Your task to perform on an android device: Show me the alarms in the clock app Image 0: 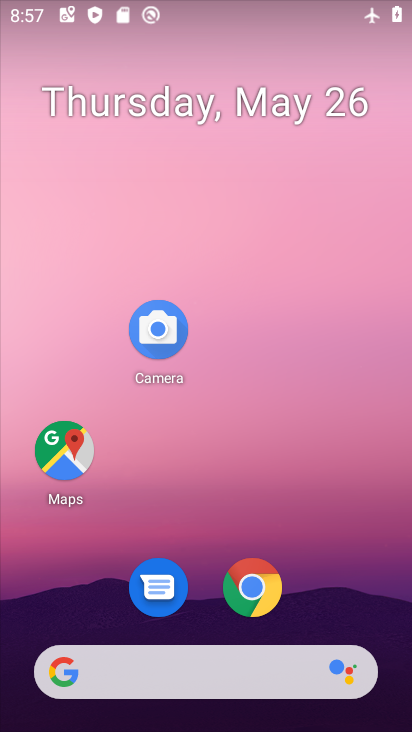
Step 0: drag from (199, 614) to (208, 223)
Your task to perform on an android device: Show me the alarms in the clock app Image 1: 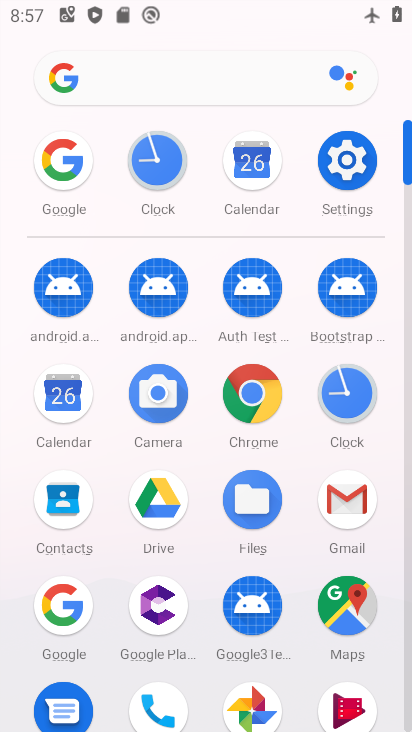
Step 1: click (155, 194)
Your task to perform on an android device: Show me the alarms in the clock app Image 2: 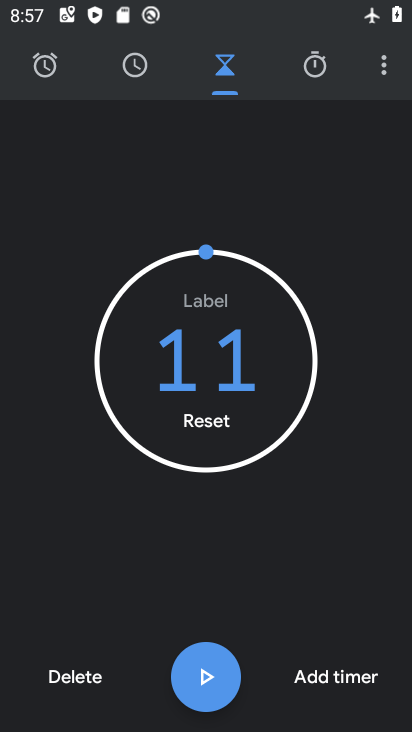
Step 2: click (47, 70)
Your task to perform on an android device: Show me the alarms in the clock app Image 3: 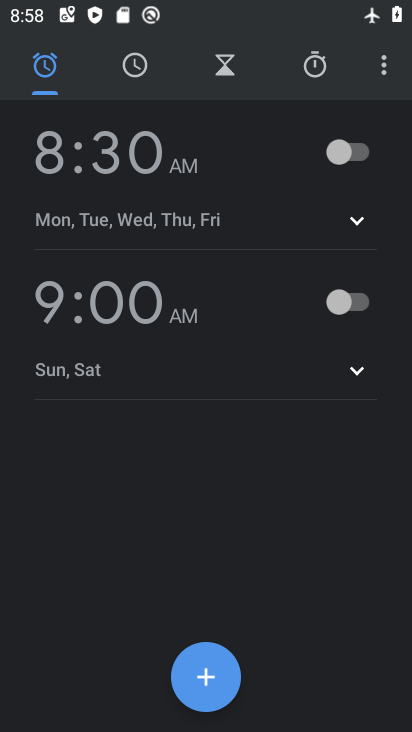
Step 3: task complete